Your task to perform on an android device: View the shopping cart on target.com. Add amazon basics triple a to the cart on target.com, then select checkout. Image 0: 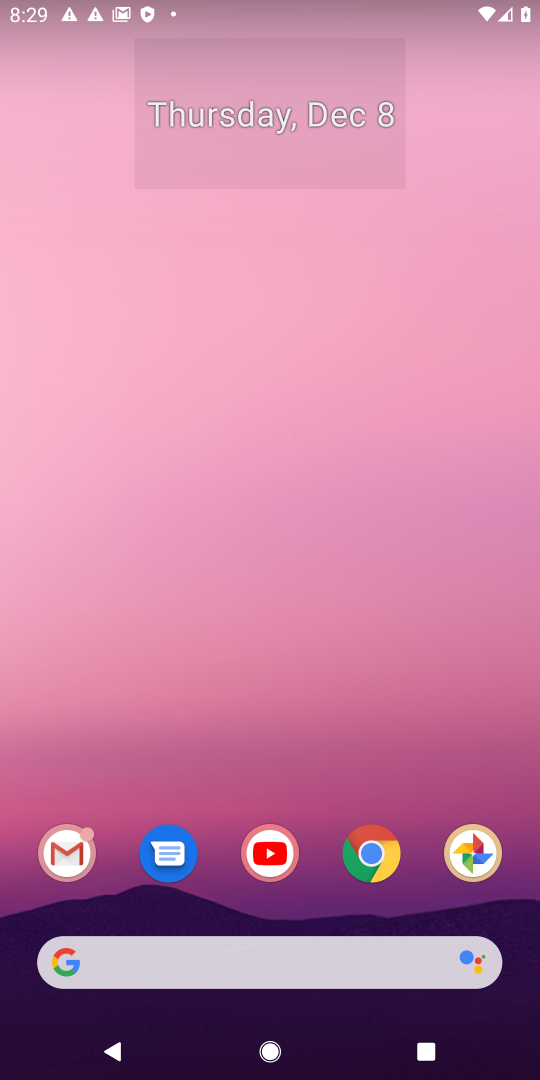
Step 0: click (145, 955)
Your task to perform on an android device: View the shopping cart on target.com. Add amazon basics triple a to the cart on target.com, then select checkout. Image 1: 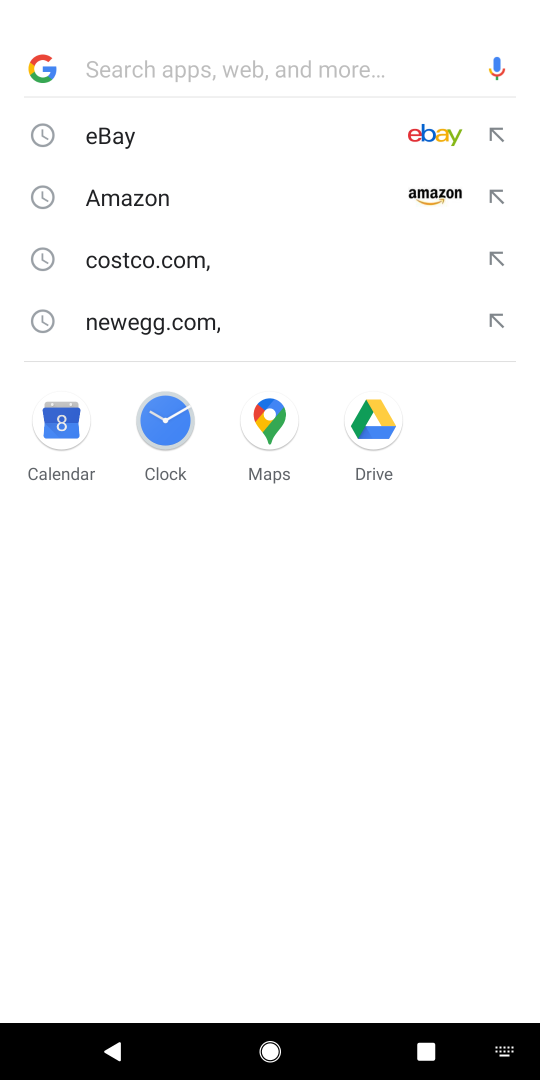
Step 1: type "target"
Your task to perform on an android device: View the shopping cart on target.com. Add amazon basics triple a to the cart on target.com, then select checkout. Image 2: 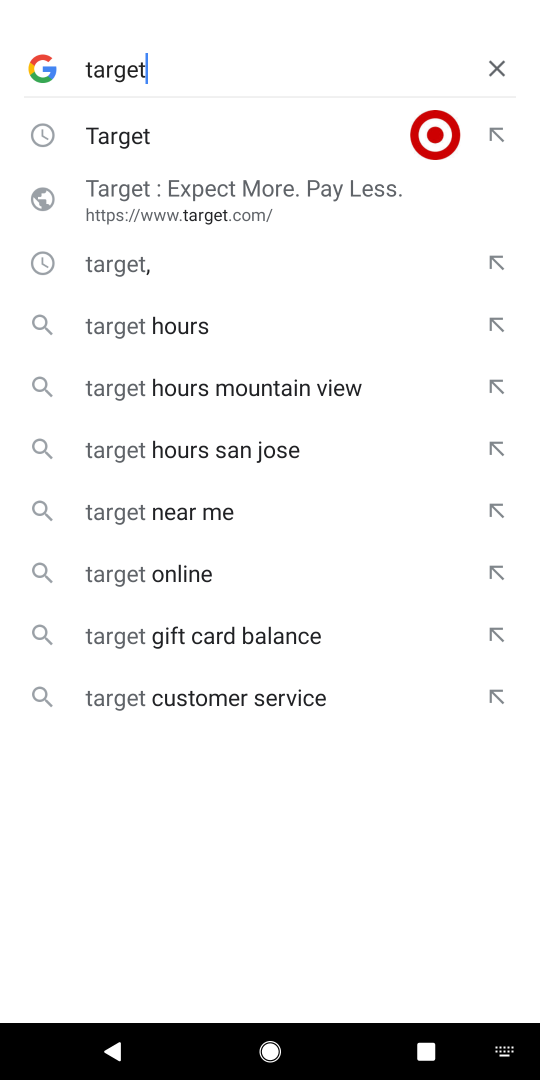
Step 2: click (133, 139)
Your task to perform on an android device: View the shopping cart on target.com. Add amazon basics triple a to the cart on target.com, then select checkout. Image 3: 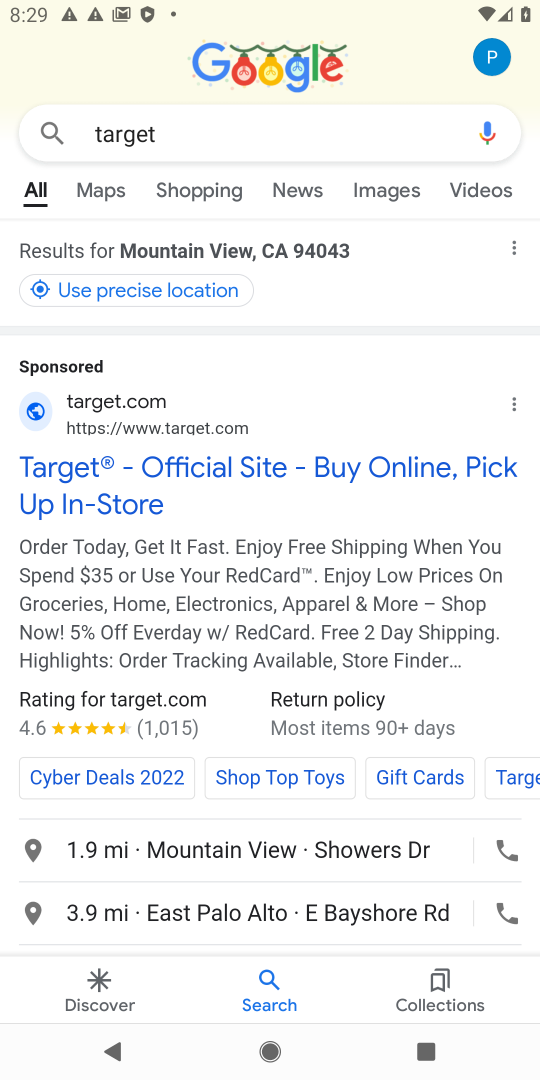
Step 3: click (164, 486)
Your task to perform on an android device: View the shopping cart on target.com. Add amazon basics triple a to the cart on target.com, then select checkout. Image 4: 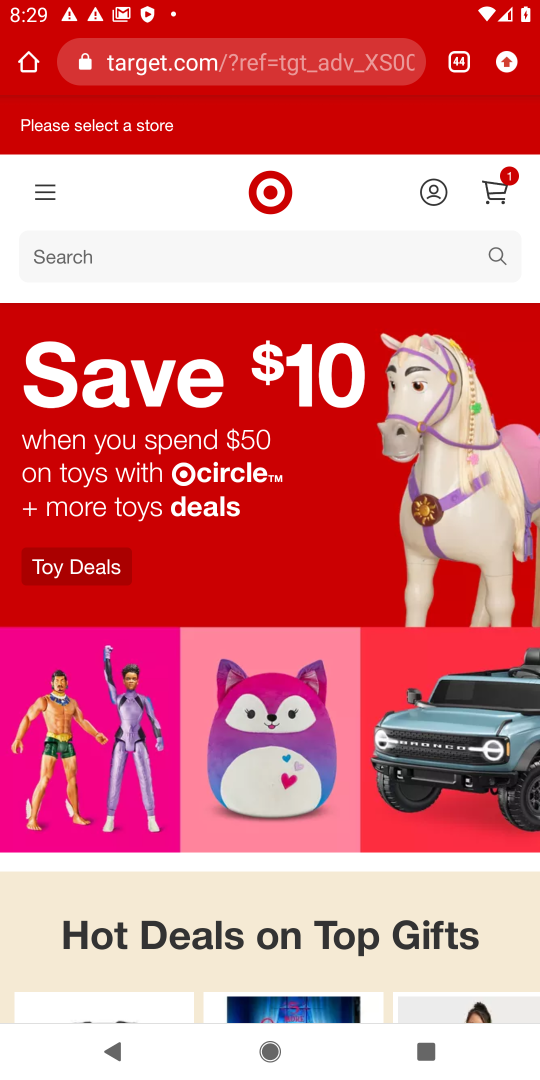
Step 4: click (130, 254)
Your task to perform on an android device: View the shopping cart on target.com. Add amazon basics triple a to the cart on target.com, then select checkout. Image 5: 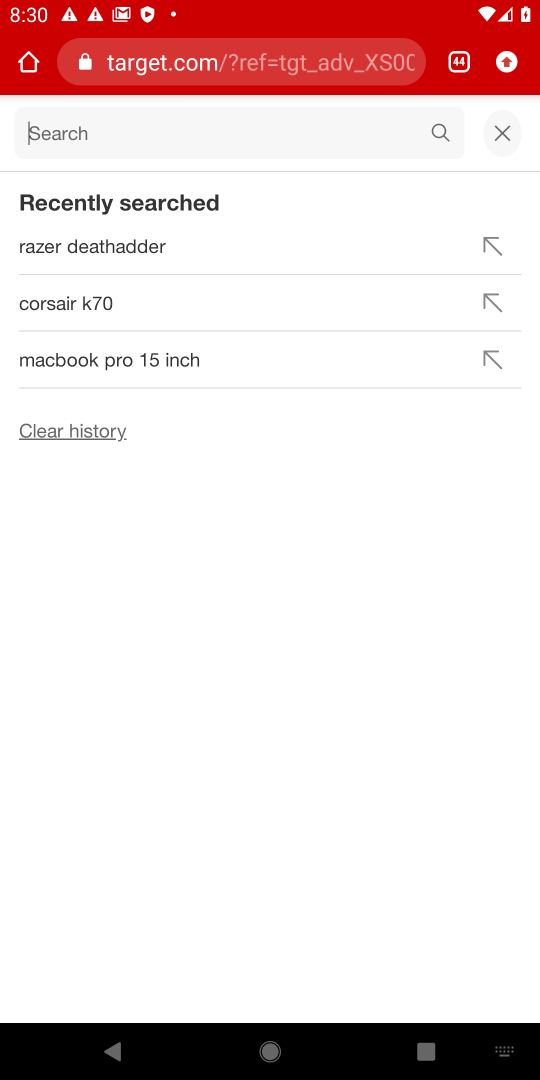
Step 5: type "amazon basics triple a"
Your task to perform on an android device: View the shopping cart on target.com. Add amazon basics triple a to the cart on target.com, then select checkout. Image 6: 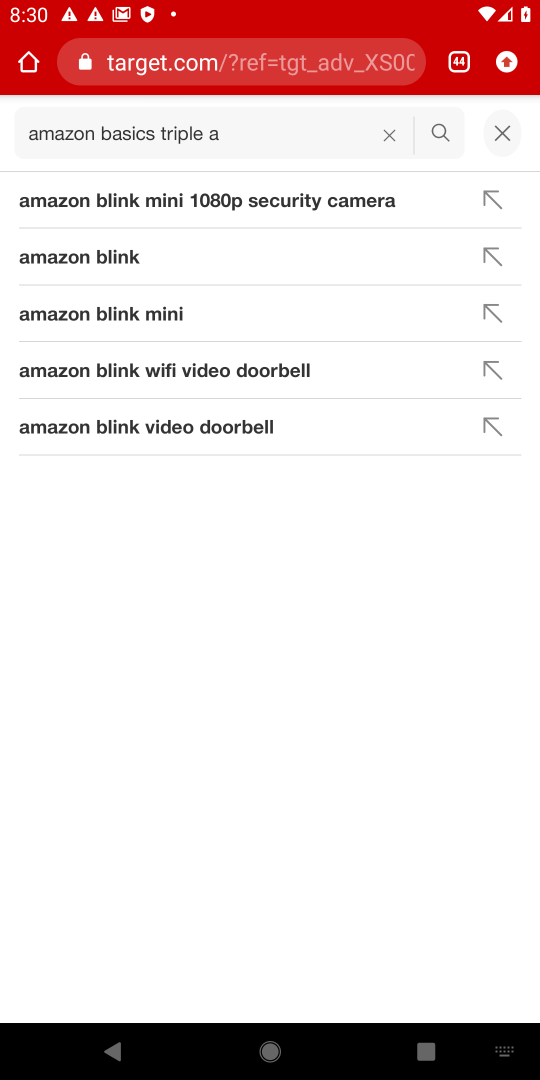
Step 6: click (431, 133)
Your task to perform on an android device: View the shopping cart on target.com. Add amazon basics triple a to the cart on target.com, then select checkout. Image 7: 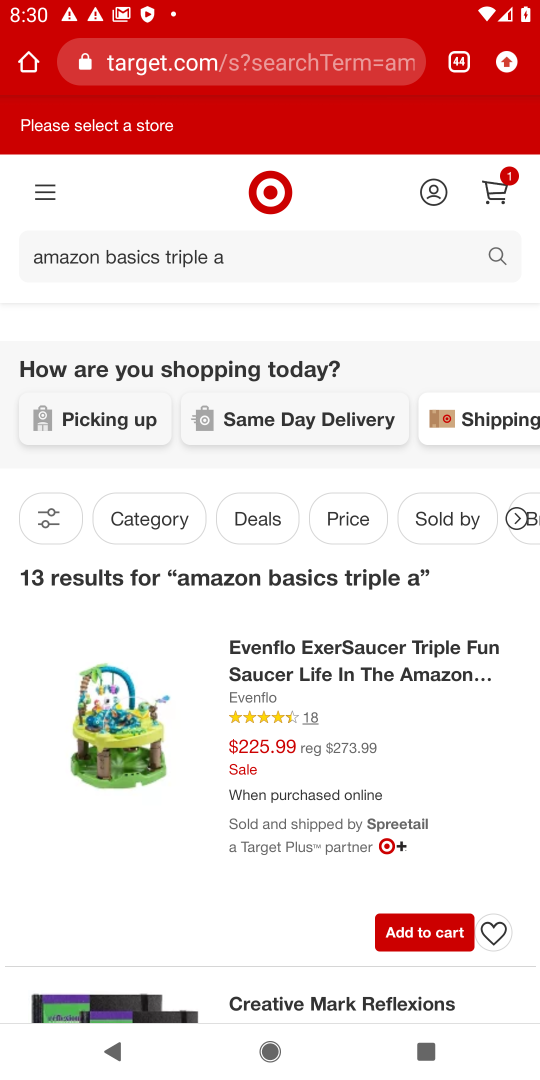
Step 7: drag from (159, 890) to (151, 658)
Your task to perform on an android device: View the shopping cart on target.com. Add amazon basics triple a to the cart on target.com, then select checkout. Image 8: 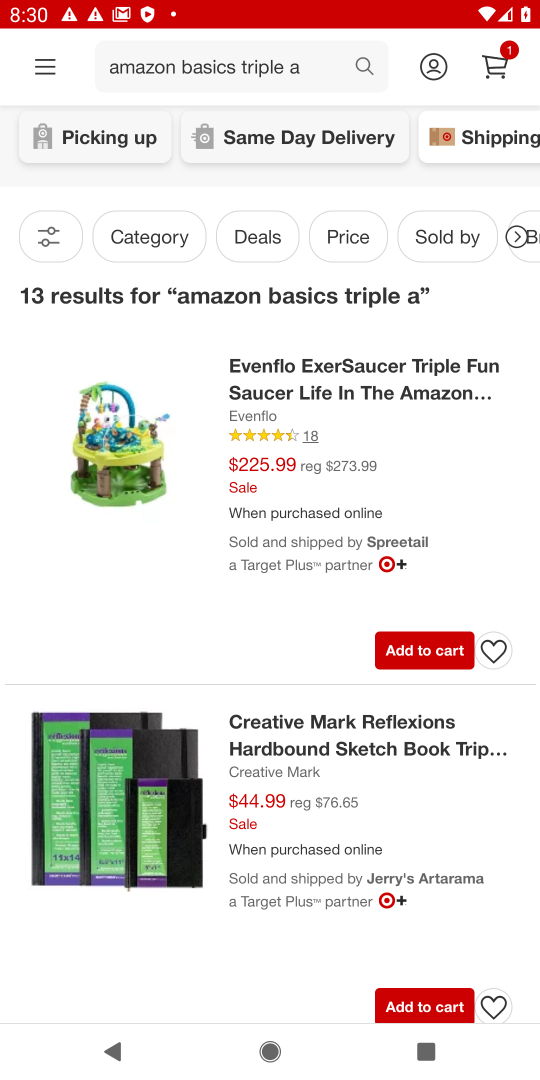
Step 8: click (412, 647)
Your task to perform on an android device: View the shopping cart on target.com. Add amazon basics triple a to the cart on target.com, then select checkout. Image 9: 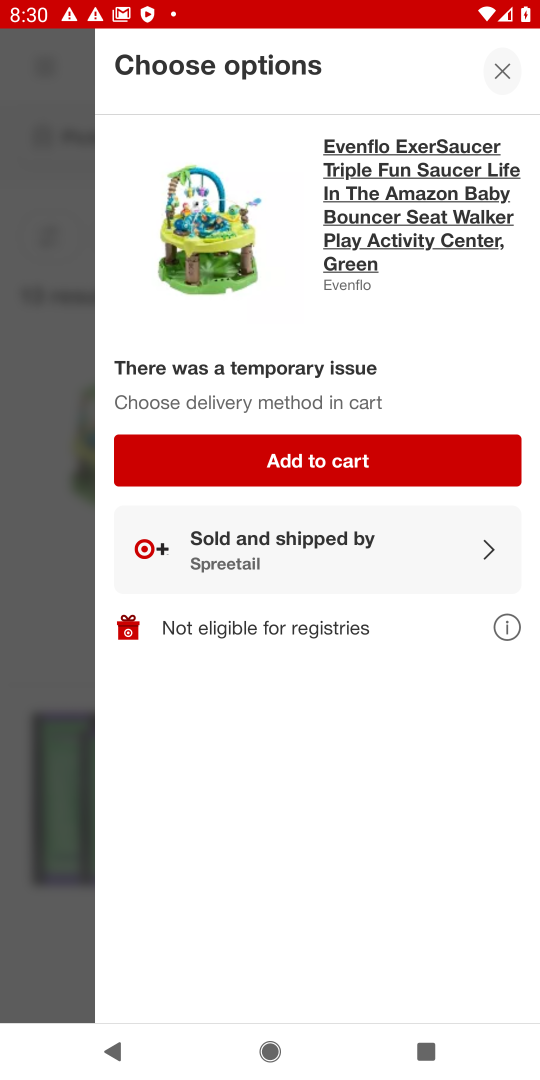
Step 9: click (315, 465)
Your task to perform on an android device: View the shopping cart on target.com. Add amazon basics triple a to the cart on target.com, then select checkout. Image 10: 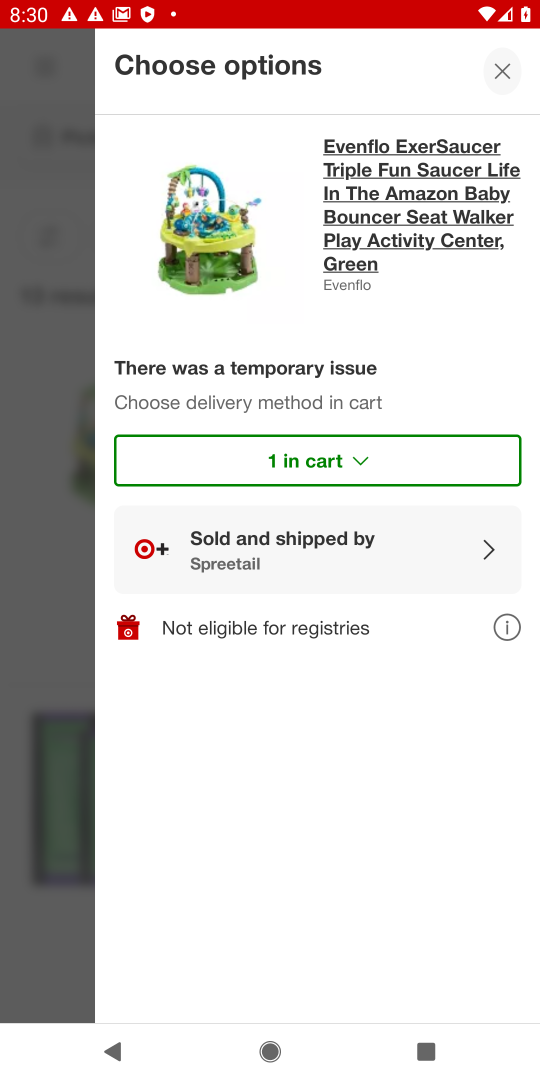
Step 10: click (504, 75)
Your task to perform on an android device: View the shopping cart on target.com. Add amazon basics triple a to the cart on target.com, then select checkout. Image 11: 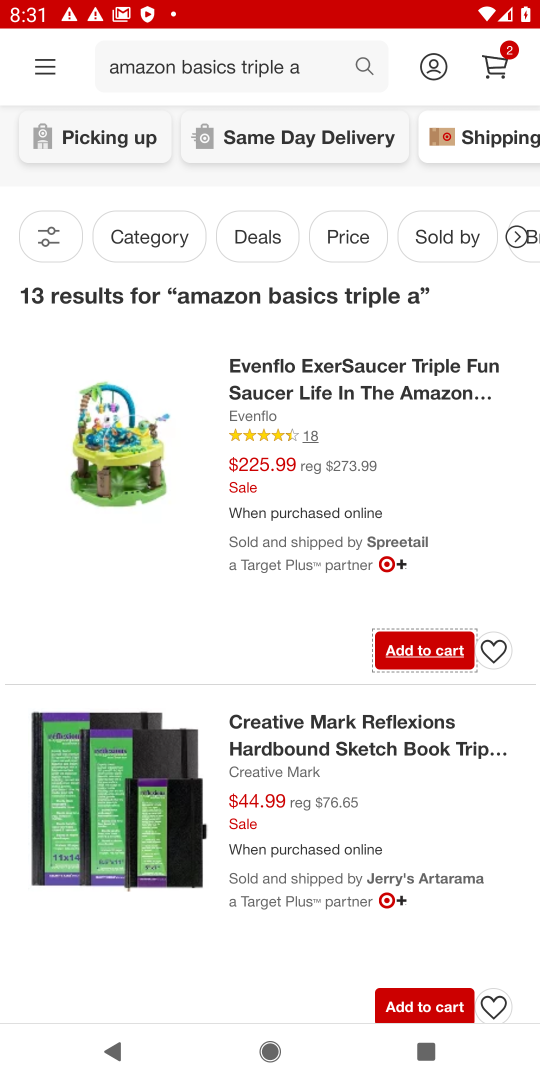
Step 11: click (494, 62)
Your task to perform on an android device: View the shopping cart on target.com. Add amazon basics triple a to the cart on target.com, then select checkout. Image 12: 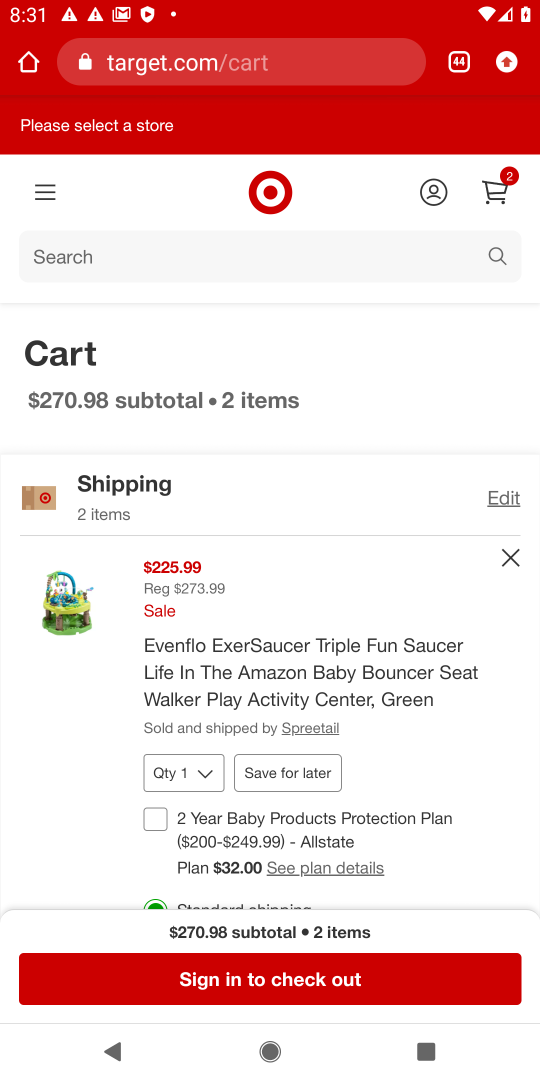
Step 12: click (285, 985)
Your task to perform on an android device: View the shopping cart on target.com. Add amazon basics triple a to the cart on target.com, then select checkout. Image 13: 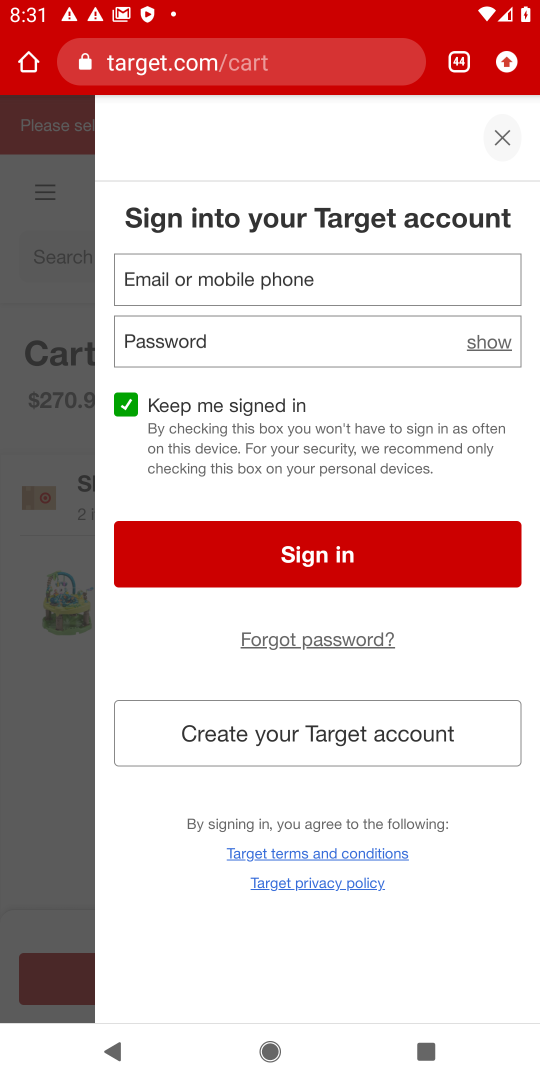
Step 13: task complete